Your task to perform on an android device: Open notification settings Image 0: 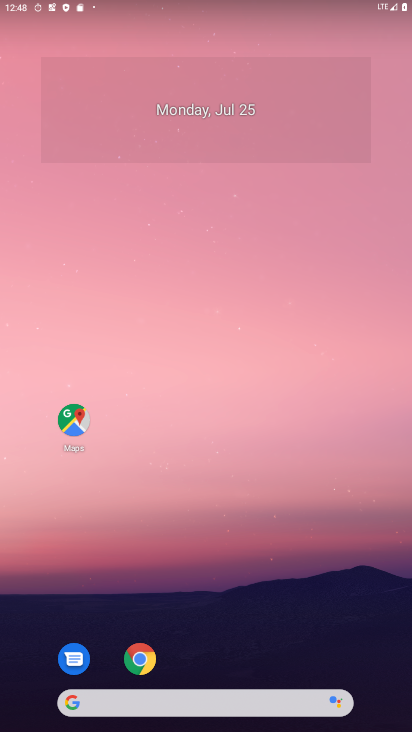
Step 0: drag from (36, 608) to (104, 267)
Your task to perform on an android device: Open notification settings Image 1: 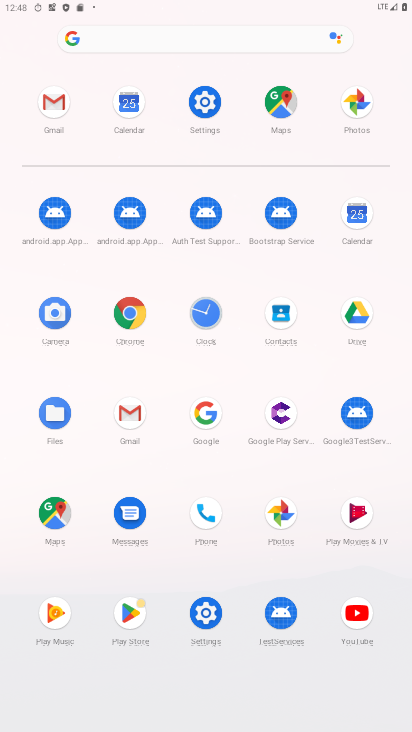
Step 1: click (208, 617)
Your task to perform on an android device: Open notification settings Image 2: 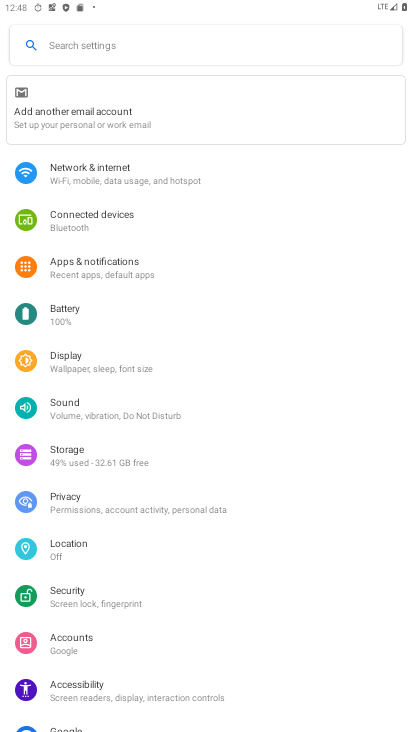
Step 2: click (99, 171)
Your task to perform on an android device: Open notification settings Image 3: 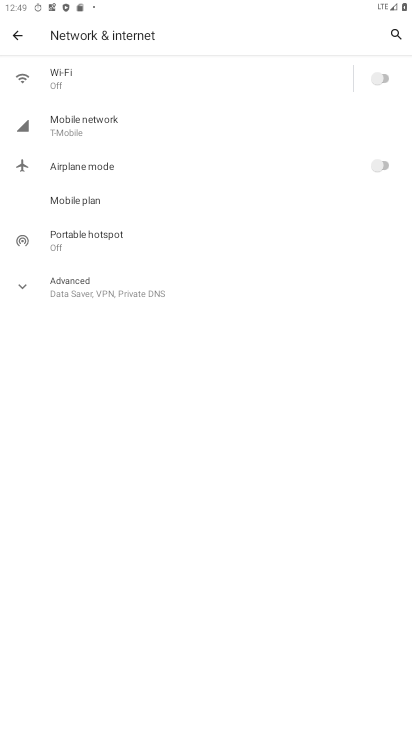
Step 3: click (18, 27)
Your task to perform on an android device: Open notification settings Image 4: 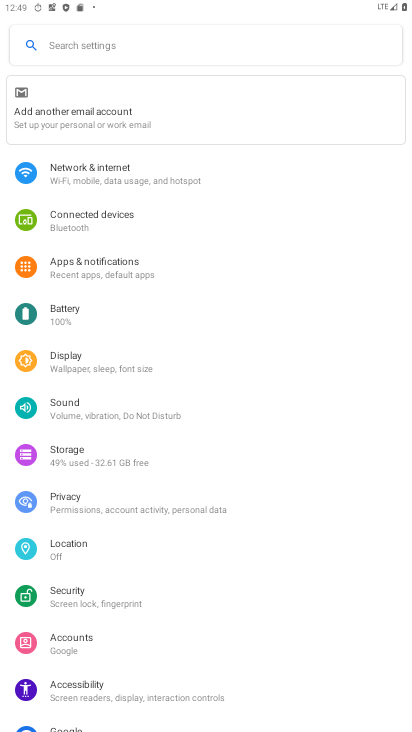
Step 4: click (79, 273)
Your task to perform on an android device: Open notification settings Image 5: 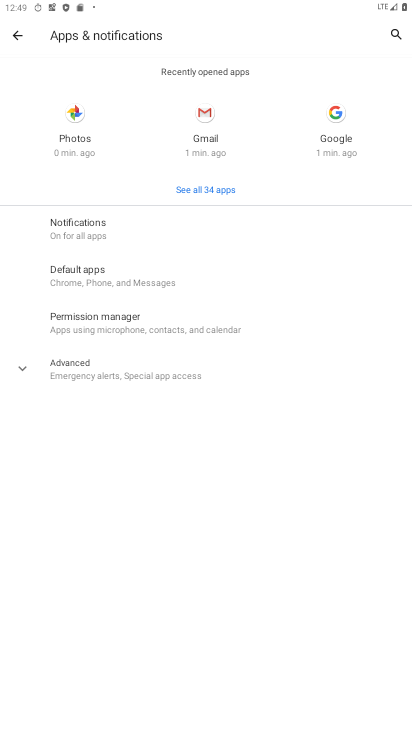
Step 5: click (66, 219)
Your task to perform on an android device: Open notification settings Image 6: 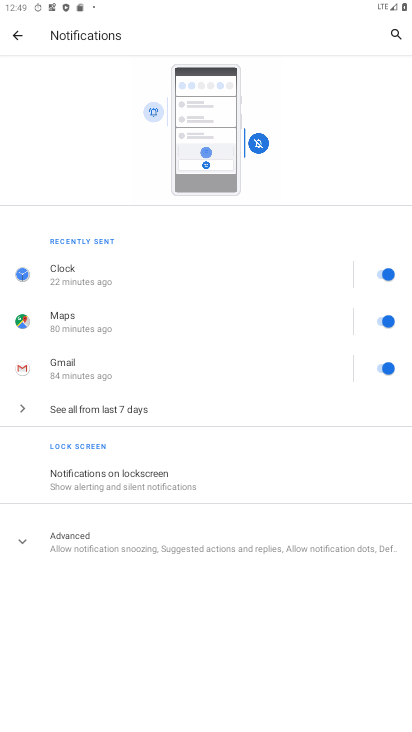
Step 6: task complete